Your task to perform on an android device: Go to display settings Image 0: 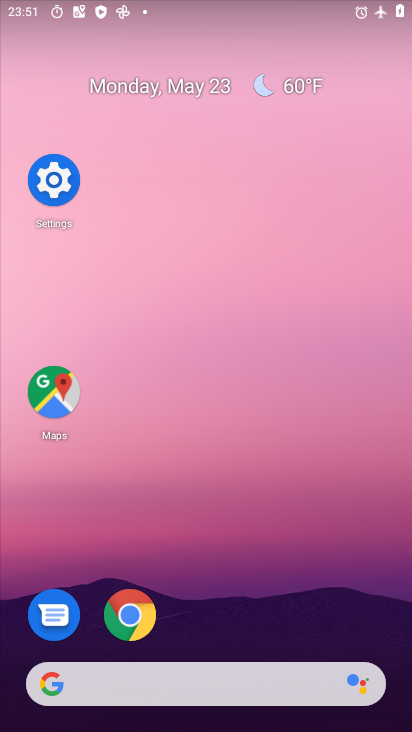
Step 0: drag from (211, 571) to (238, 53)
Your task to perform on an android device: Go to display settings Image 1: 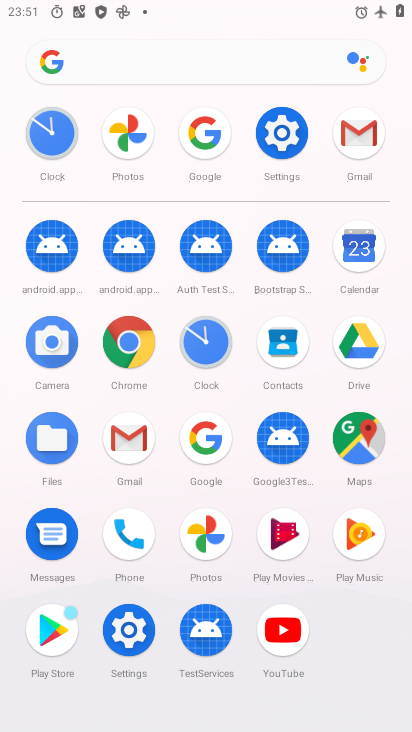
Step 1: click (285, 131)
Your task to perform on an android device: Go to display settings Image 2: 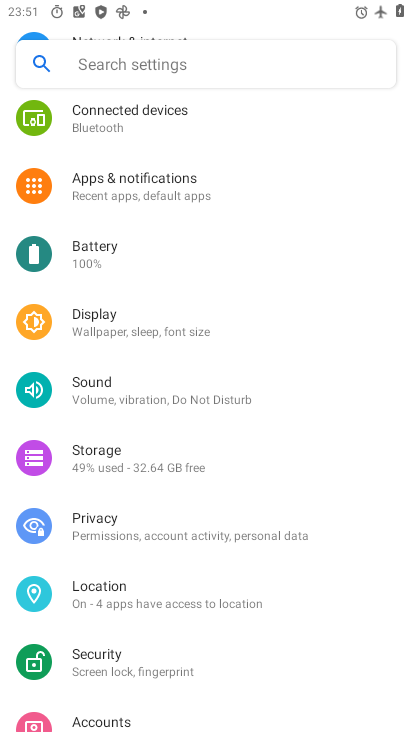
Step 2: click (119, 320)
Your task to perform on an android device: Go to display settings Image 3: 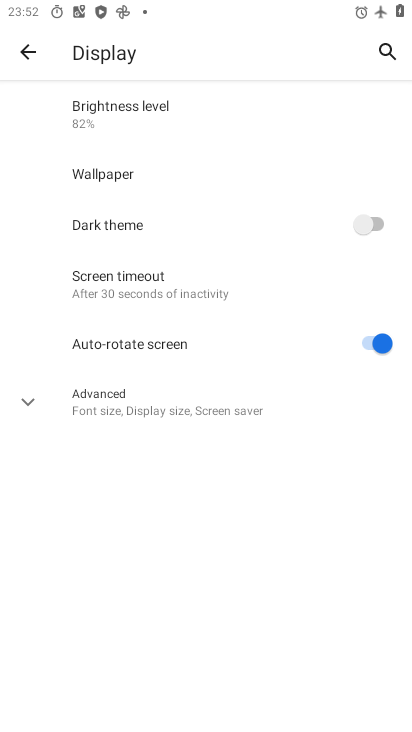
Step 3: task complete